Your task to perform on an android device: Open Maps and search for coffee Image 0: 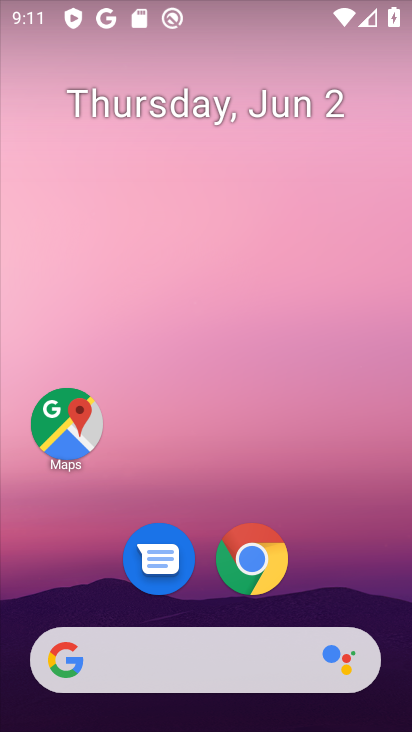
Step 0: click (79, 425)
Your task to perform on an android device: Open Maps and search for coffee Image 1: 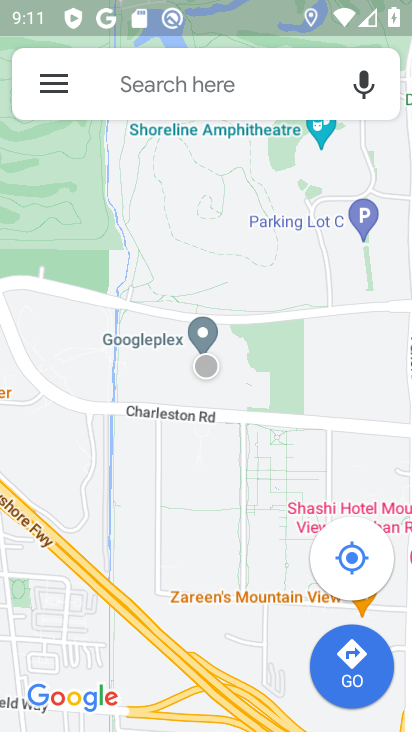
Step 1: click (182, 97)
Your task to perform on an android device: Open Maps and search for coffee Image 2: 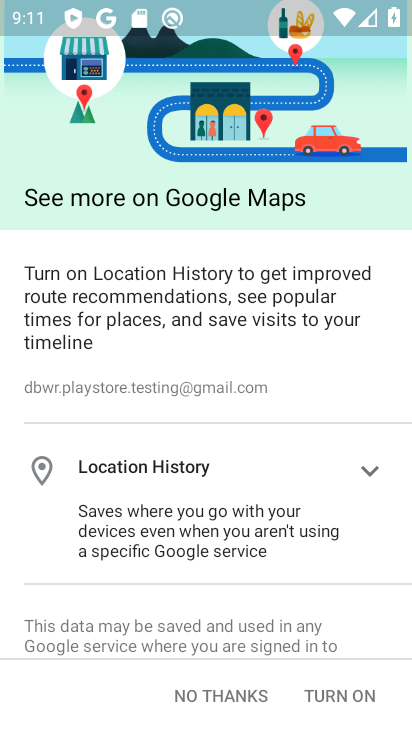
Step 2: click (323, 701)
Your task to perform on an android device: Open Maps and search for coffee Image 3: 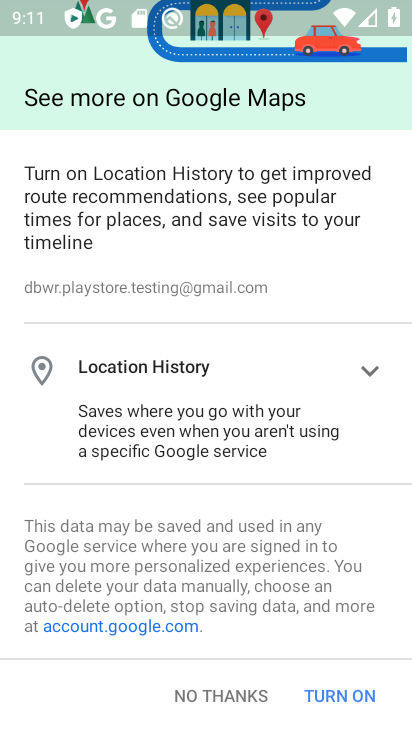
Step 3: click (322, 701)
Your task to perform on an android device: Open Maps and search for coffee Image 4: 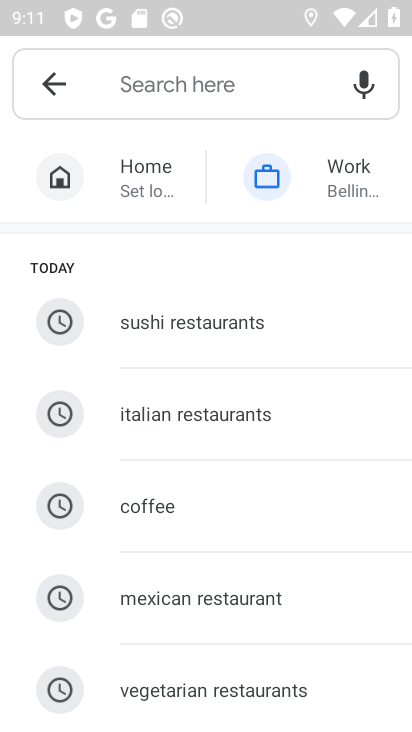
Step 4: click (220, 496)
Your task to perform on an android device: Open Maps and search for coffee Image 5: 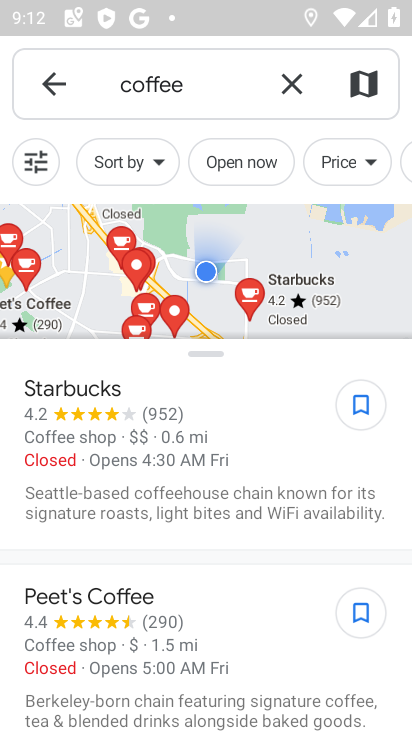
Step 5: task complete